Your task to perform on an android device: Show me recent news Image 0: 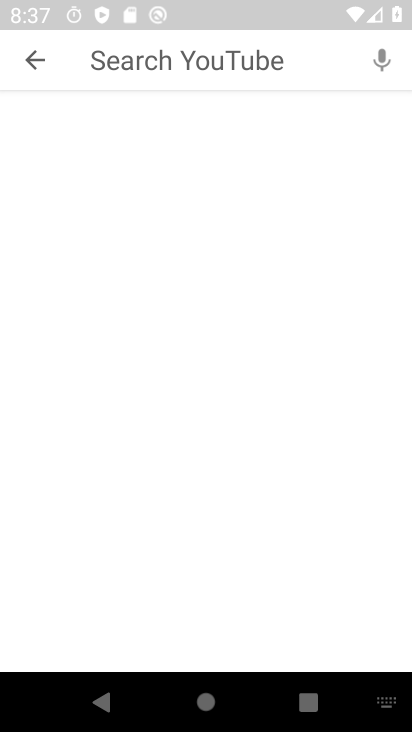
Step 0: press home button
Your task to perform on an android device: Show me recent news Image 1: 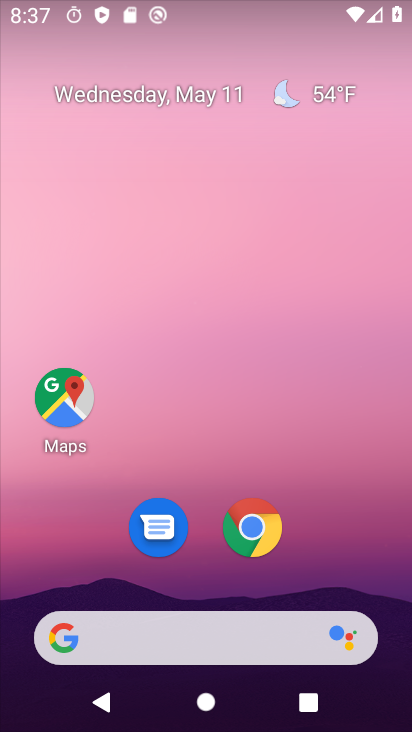
Step 1: drag from (198, 576) to (203, 76)
Your task to perform on an android device: Show me recent news Image 2: 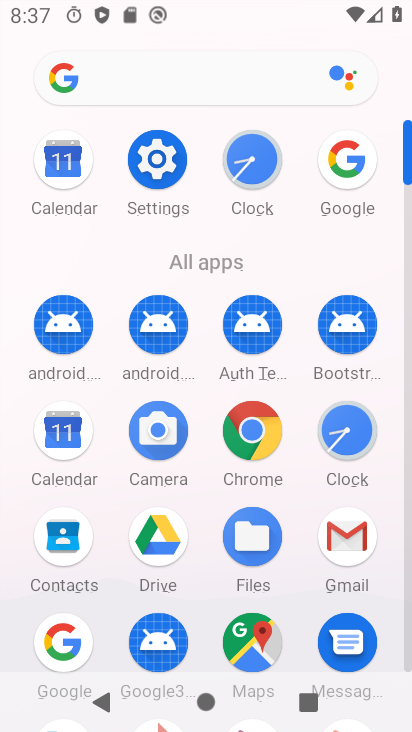
Step 2: click (348, 158)
Your task to perform on an android device: Show me recent news Image 3: 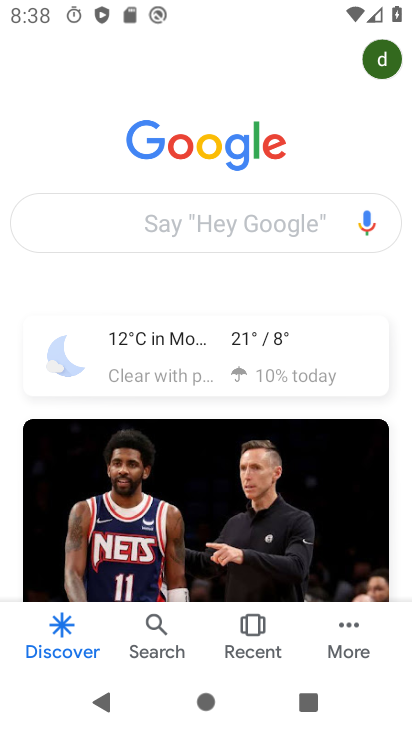
Step 3: click (131, 225)
Your task to perform on an android device: Show me recent news Image 4: 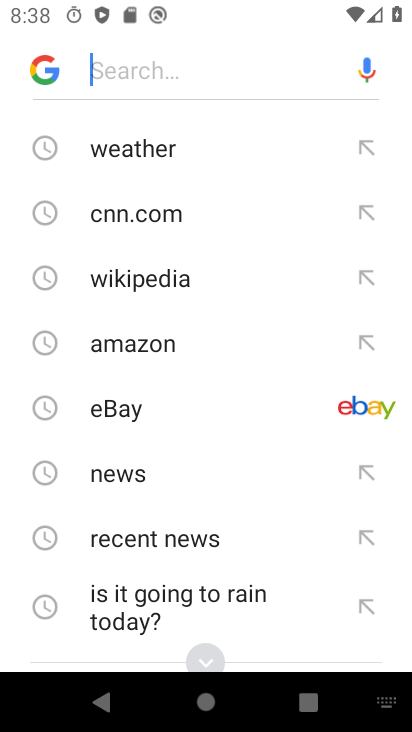
Step 4: drag from (145, 471) to (211, 211)
Your task to perform on an android device: Show me recent news Image 5: 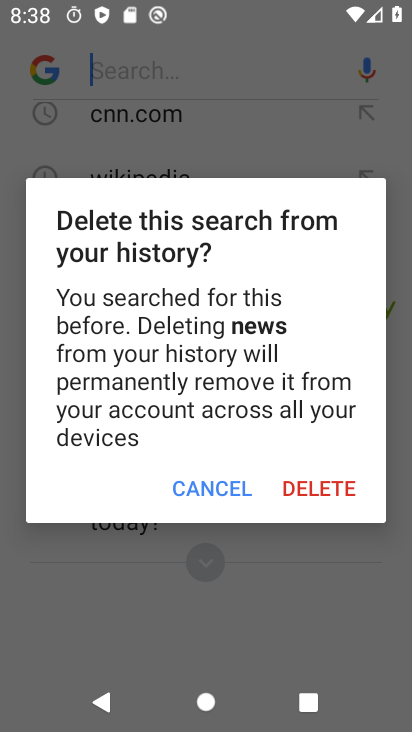
Step 5: click (225, 491)
Your task to perform on an android device: Show me recent news Image 6: 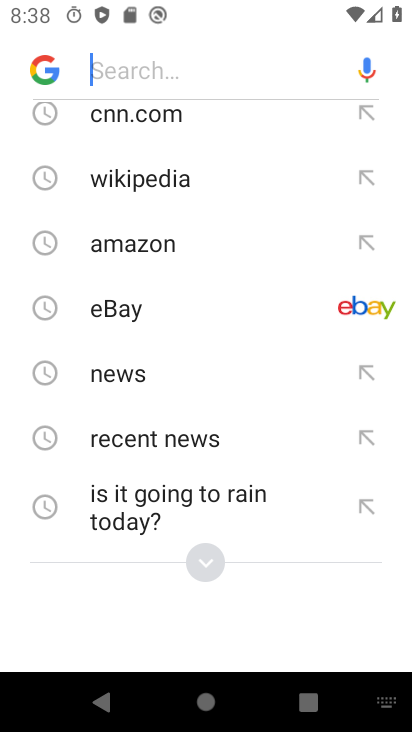
Step 6: drag from (184, 191) to (204, 438)
Your task to perform on an android device: Show me recent news Image 7: 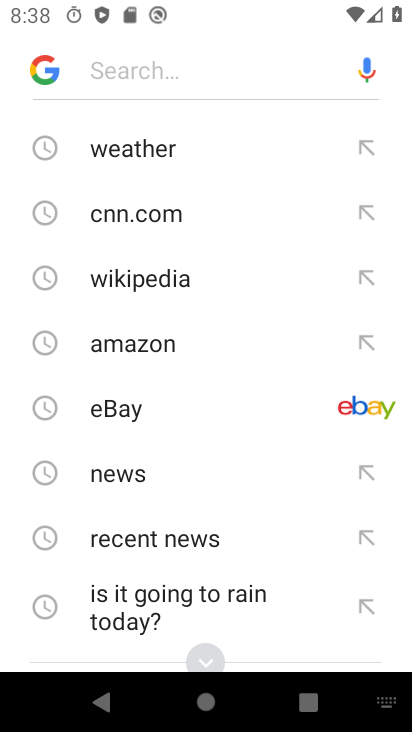
Step 7: drag from (198, 217) to (219, 330)
Your task to perform on an android device: Show me recent news Image 8: 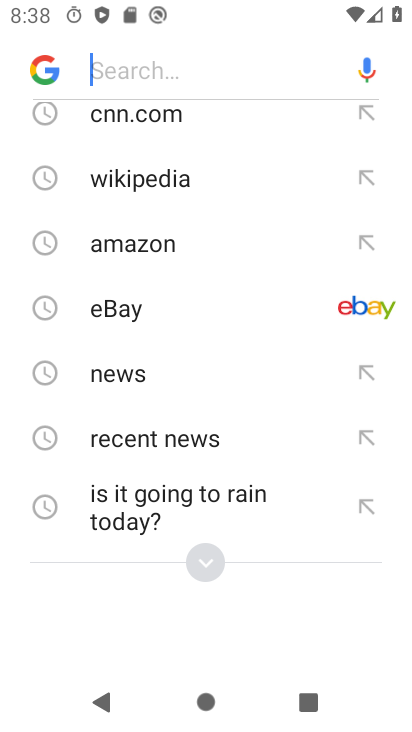
Step 8: click (160, 438)
Your task to perform on an android device: Show me recent news Image 9: 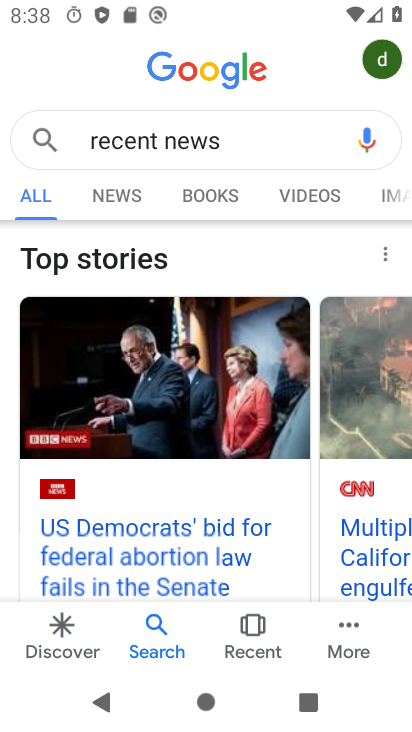
Step 9: task complete